Your task to perform on an android device: change your default location settings in chrome Image 0: 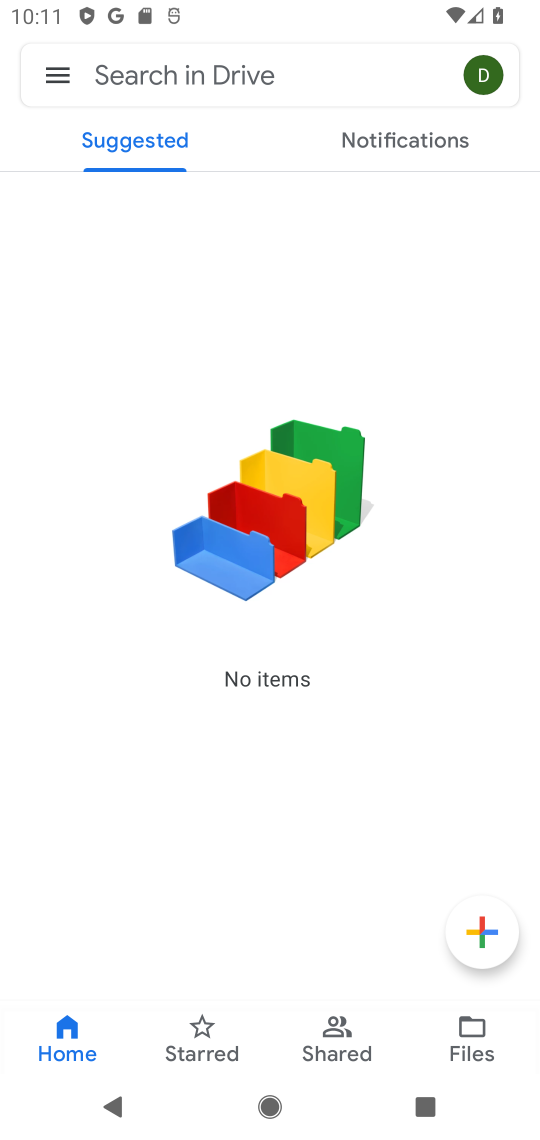
Step 0: press home button
Your task to perform on an android device: change your default location settings in chrome Image 1: 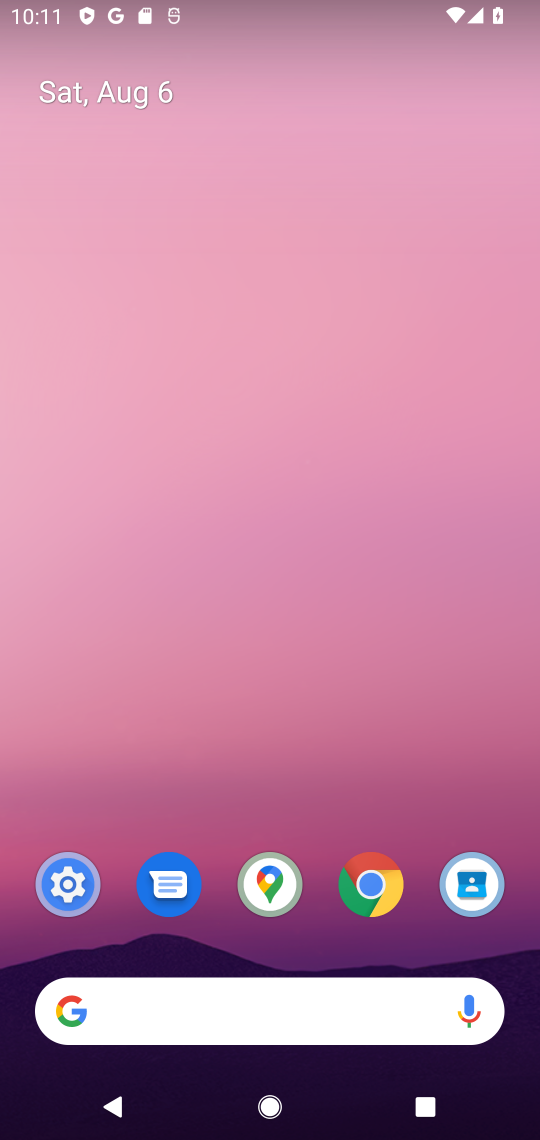
Step 1: click (373, 886)
Your task to perform on an android device: change your default location settings in chrome Image 2: 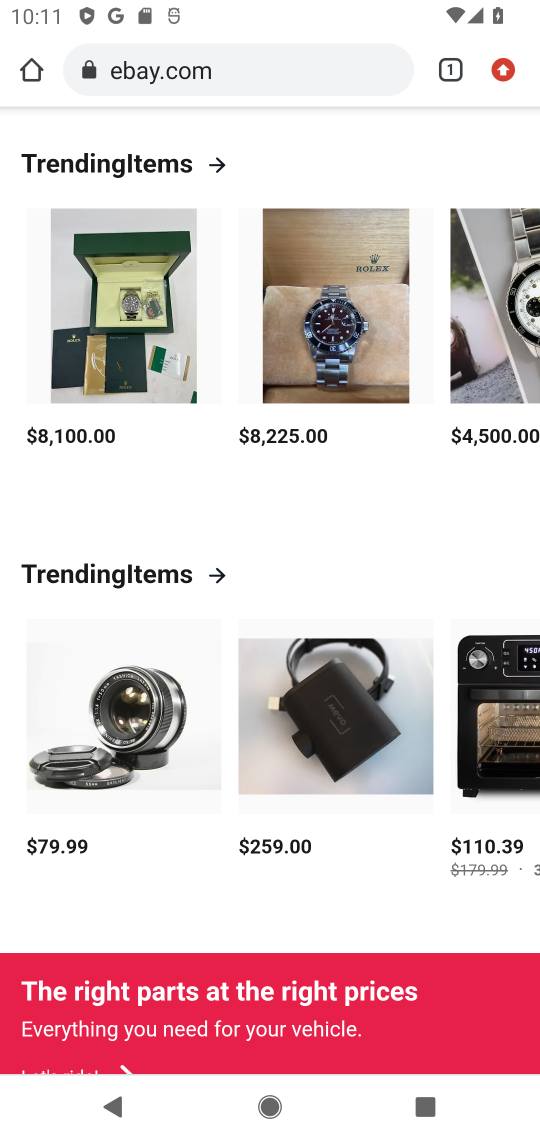
Step 2: click (500, 73)
Your task to perform on an android device: change your default location settings in chrome Image 3: 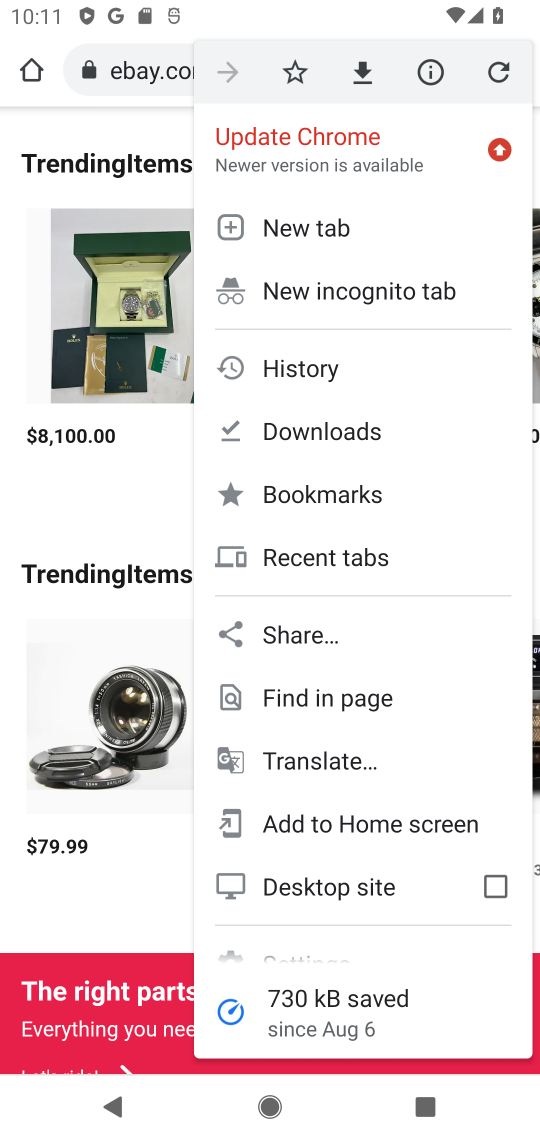
Step 3: drag from (428, 901) to (429, 447)
Your task to perform on an android device: change your default location settings in chrome Image 4: 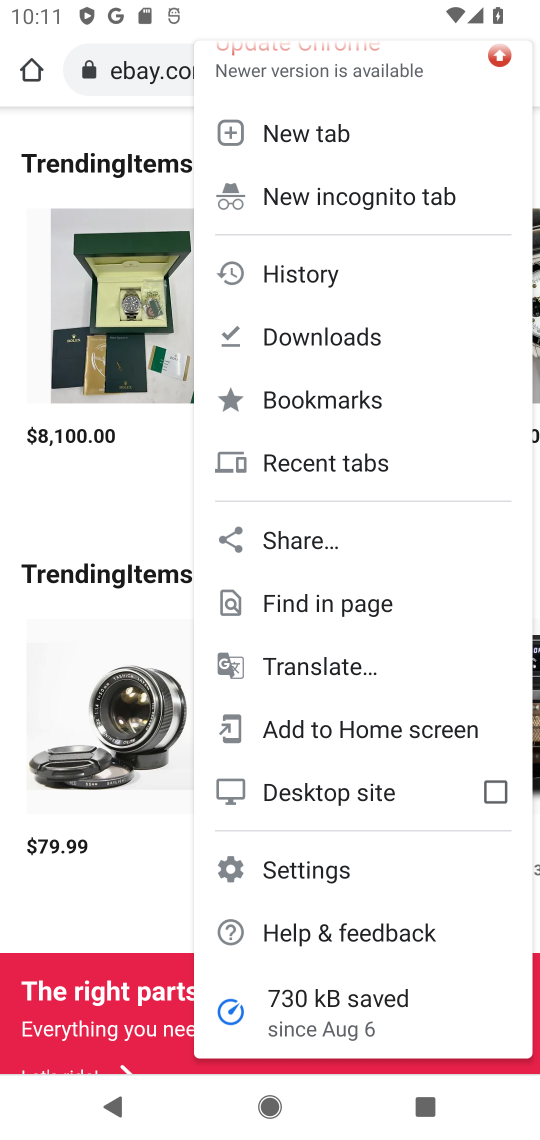
Step 4: click (305, 868)
Your task to perform on an android device: change your default location settings in chrome Image 5: 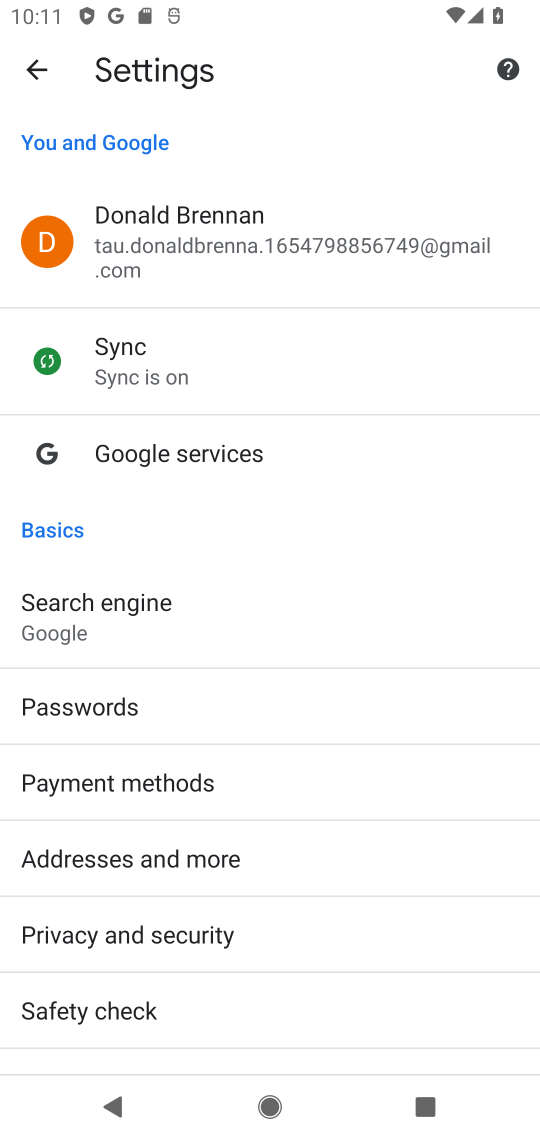
Step 5: drag from (327, 989) to (339, 390)
Your task to perform on an android device: change your default location settings in chrome Image 6: 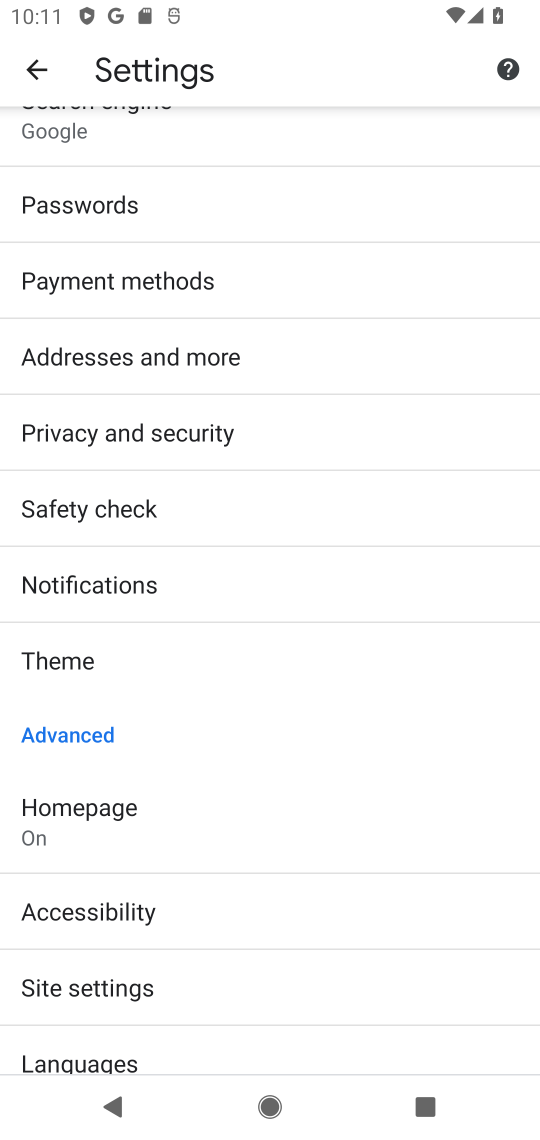
Step 6: click (93, 980)
Your task to perform on an android device: change your default location settings in chrome Image 7: 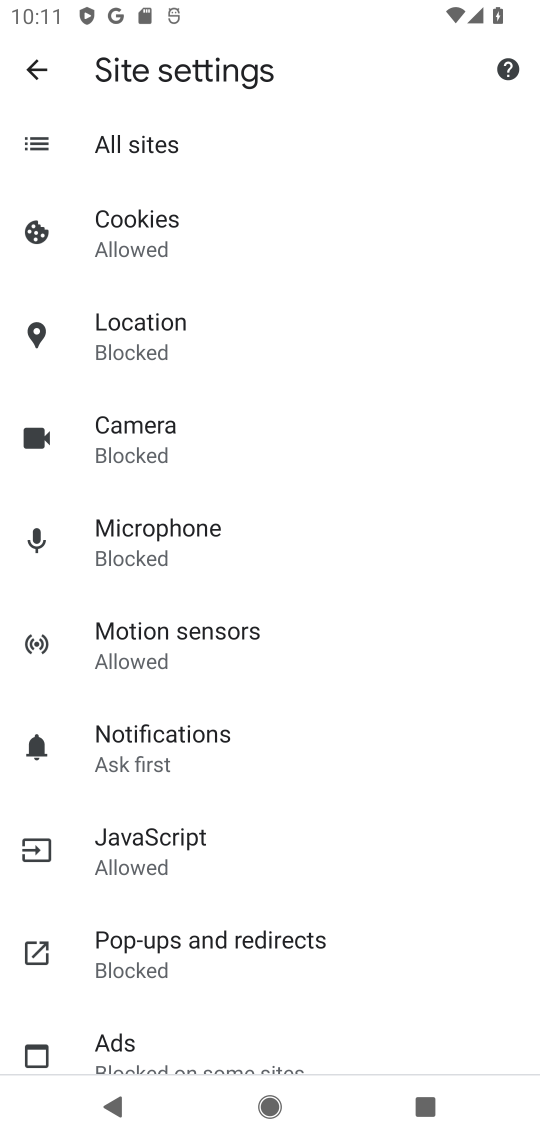
Step 7: click (130, 316)
Your task to perform on an android device: change your default location settings in chrome Image 8: 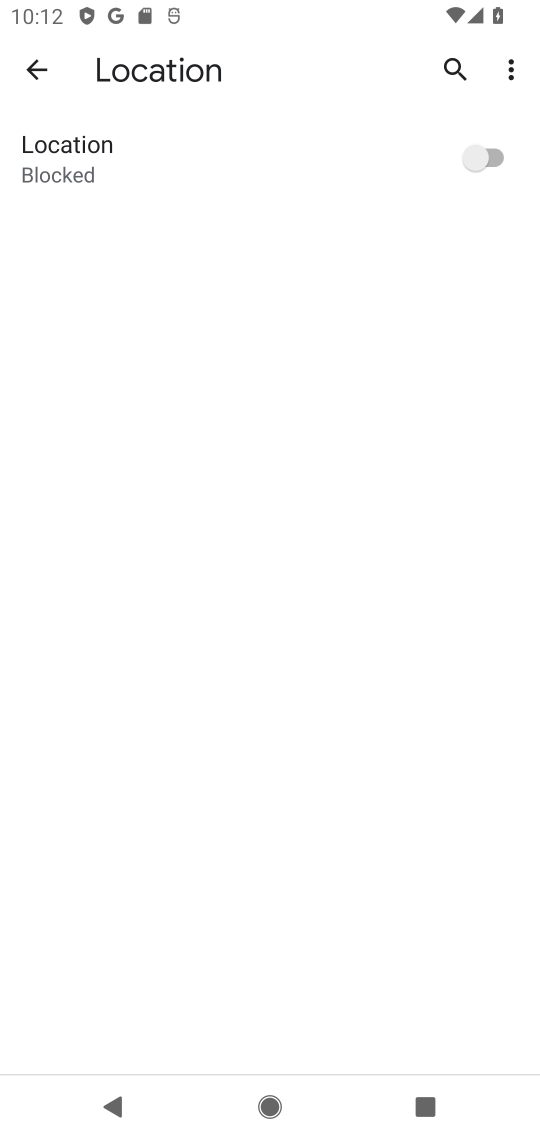
Step 8: click (496, 155)
Your task to perform on an android device: change your default location settings in chrome Image 9: 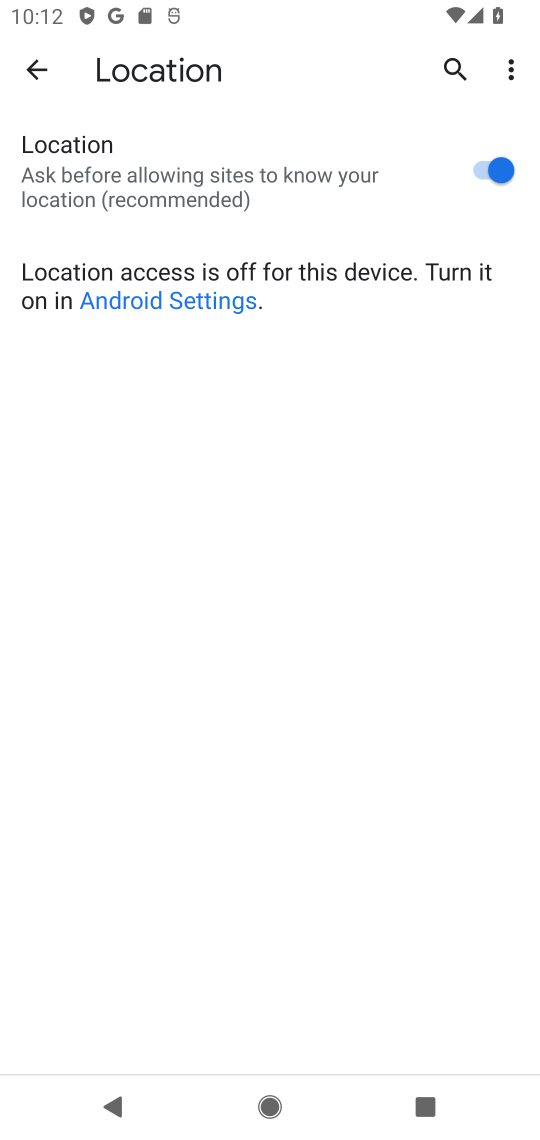
Step 9: task complete